Your task to perform on an android device: Open Youtube and go to "Your channel" Image 0: 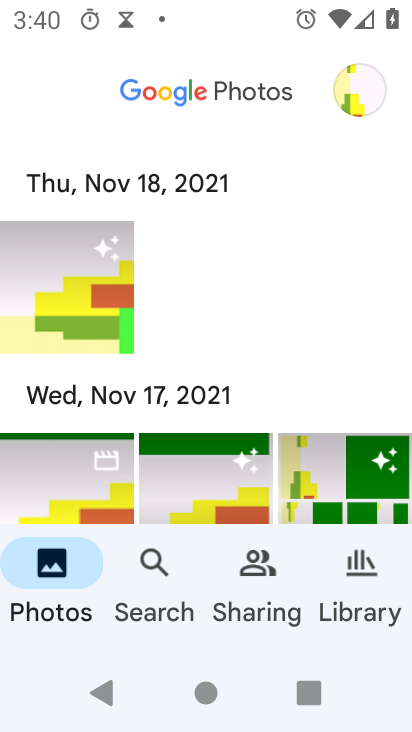
Step 0: press home button
Your task to perform on an android device: Open Youtube and go to "Your channel" Image 1: 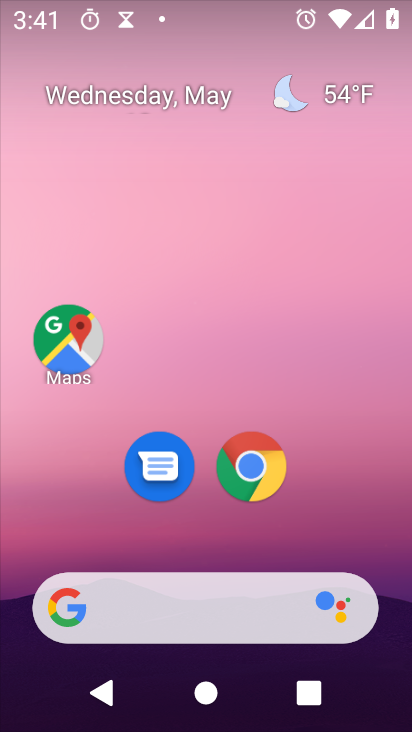
Step 1: drag from (362, 542) to (241, 75)
Your task to perform on an android device: Open Youtube and go to "Your channel" Image 2: 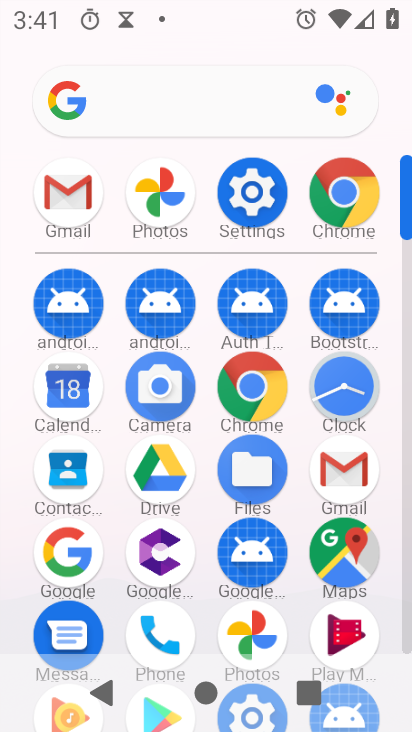
Step 2: click (407, 605)
Your task to perform on an android device: Open Youtube and go to "Your channel" Image 3: 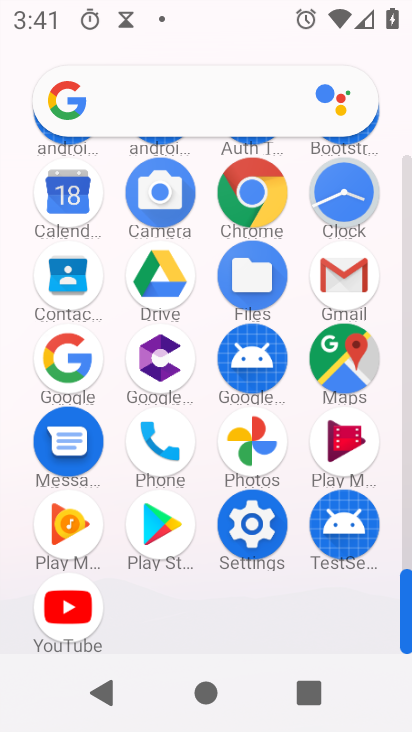
Step 3: click (76, 602)
Your task to perform on an android device: Open Youtube and go to "Your channel" Image 4: 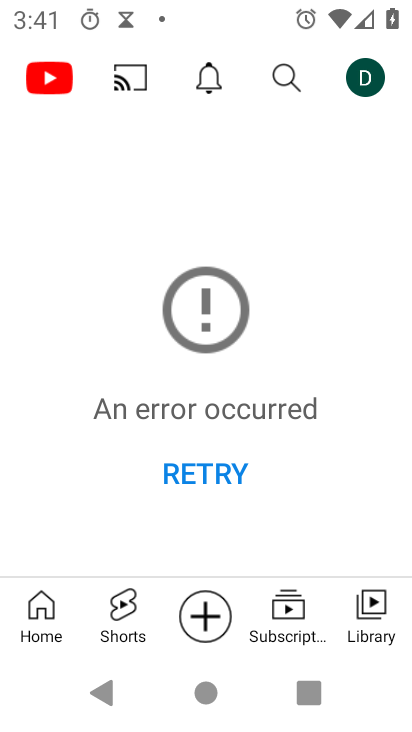
Step 4: click (358, 78)
Your task to perform on an android device: Open Youtube and go to "Your channel" Image 5: 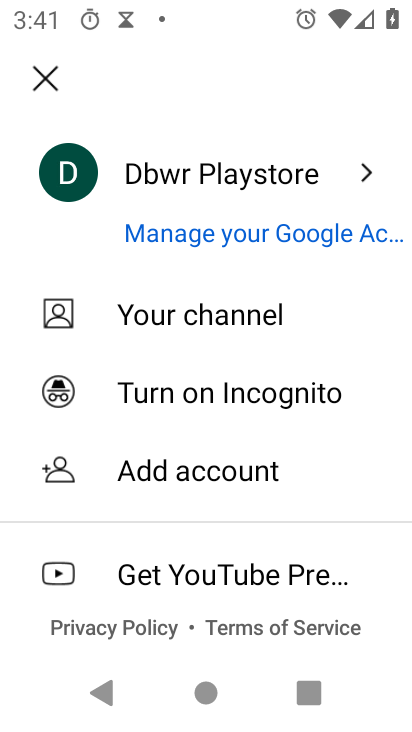
Step 5: click (270, 319)
Your task to perform on an android device: Open Youtube and go to "Your channel" Image 6: 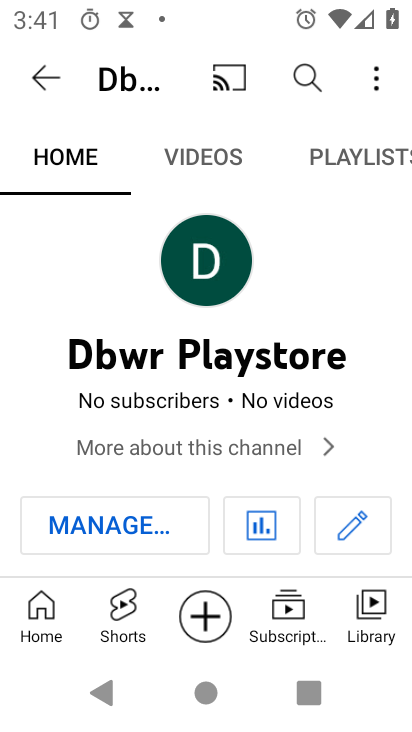
Step 6: task complete